Your task to perform on an android device: Go to settings Image 0: 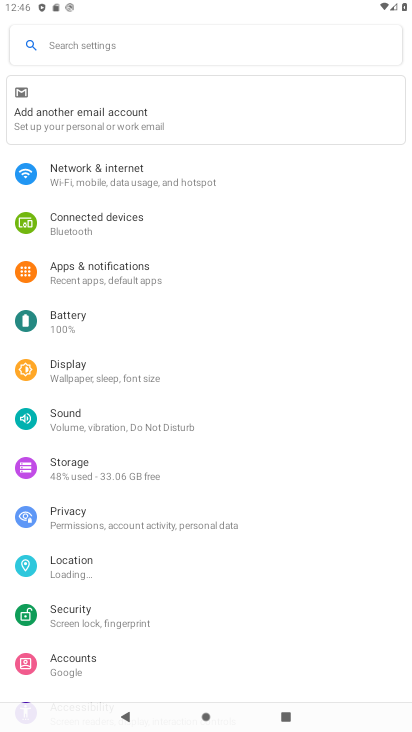
Step 0: task complete